Your task to perform on an android device: Open settings on Google Maps Image 0: 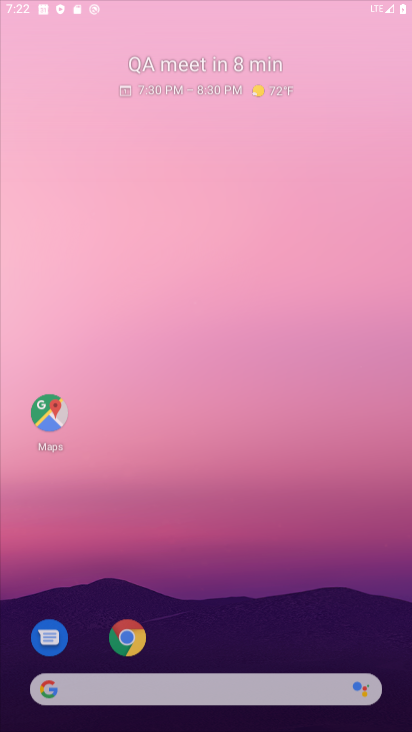
Step 0: press home button
Your task to perform on an android device: Open settings on Google Maps Image 1: 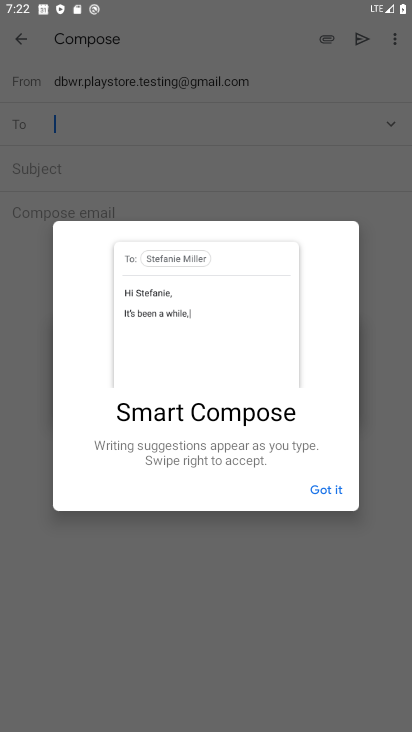
Step 1: click (281, 228)
Your task to perform on an android device: Open settings on Google Maps Image 2: 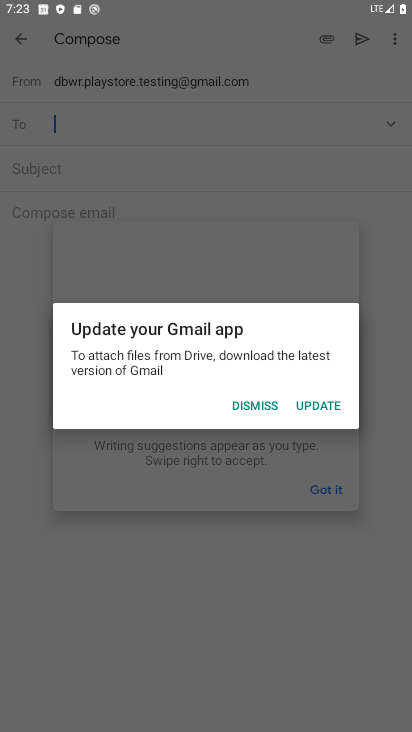
Step 2: press home button
Your task to perform on an android device: Open settings on Google Maps Image 3: 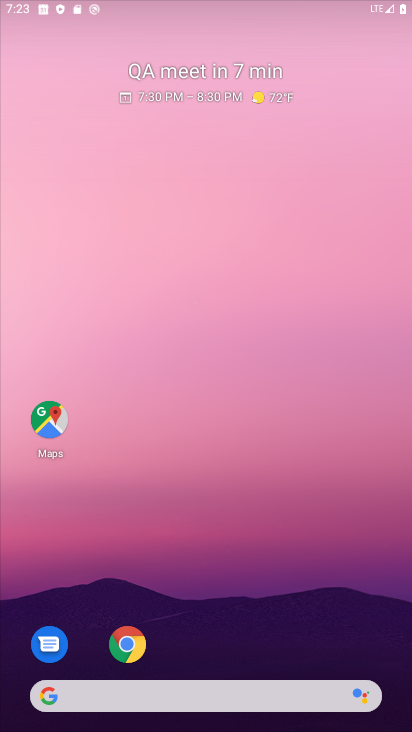
Step 3: drag from (253, 710) to (259, 164)
Your task to perform on an android device: Open settings on Google Maps Image 4: 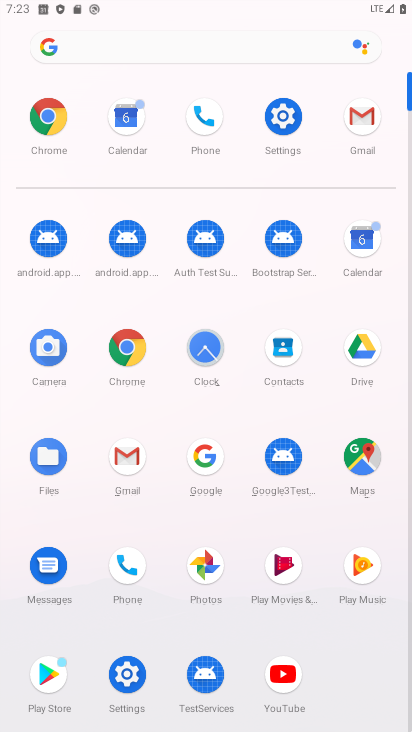
Step 4: click (368, 468)
Your task to perform on an android device: Open settings on Google Maps Image 5: 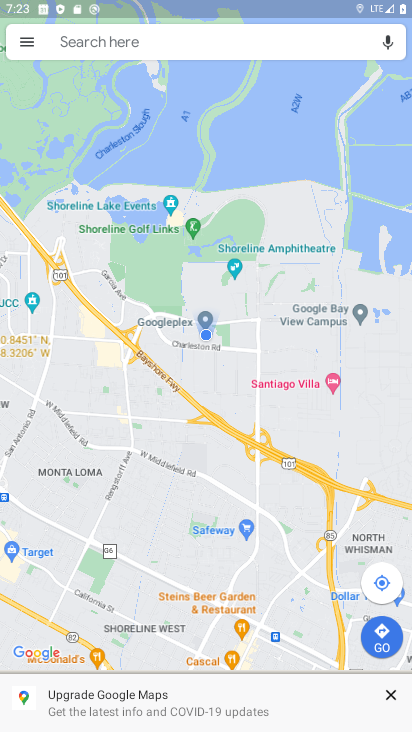
Step 5: click (18, 29)
Your task to perform on an android device: Open settings on Google Maps Image 6: 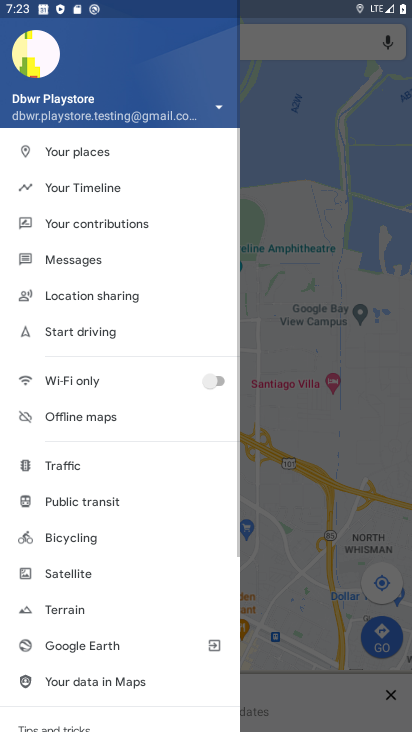
Step 6: drag from (93, 591) to (103, 511)
Your task to perform on an android device: Open settings on Google Maps Image 7: 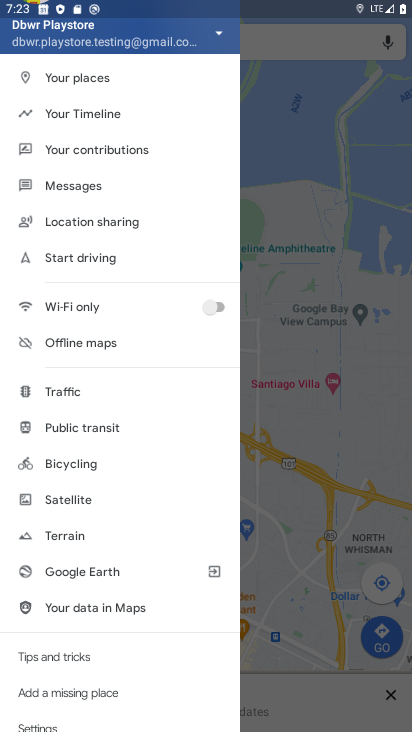
Step 7: drag from (114, 606) to (140, 481)
Your task to perform on an android device: Open settings on Google Maps Image 8: 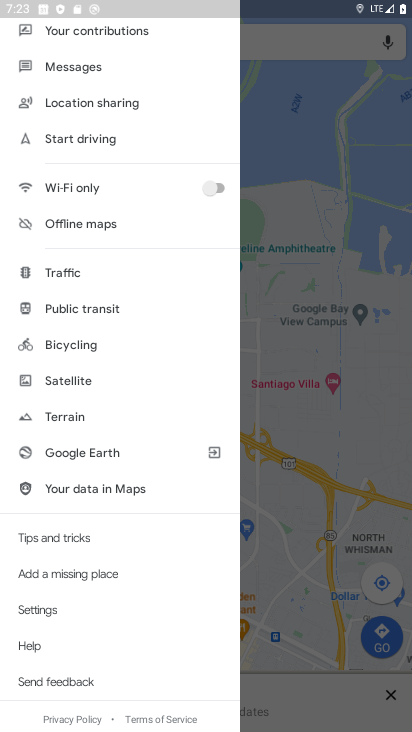
Step 8: click (53, 605)
Your task to perform on an android device: Open settings on Google Maps Image 9: 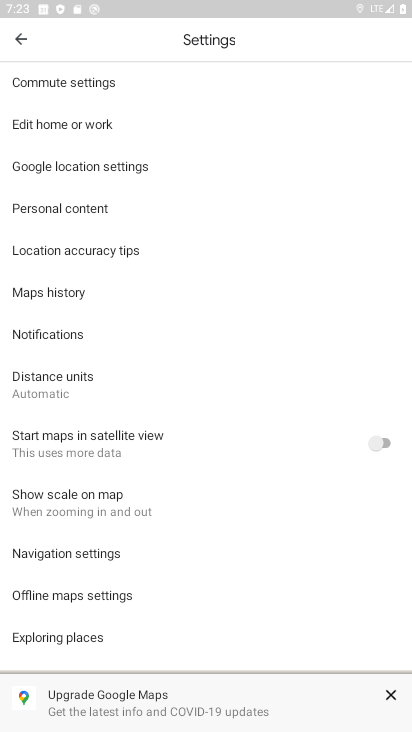
Step 9: task complete